Your task to perform on an android device: make emails show in primary in the gmail app Image 0: 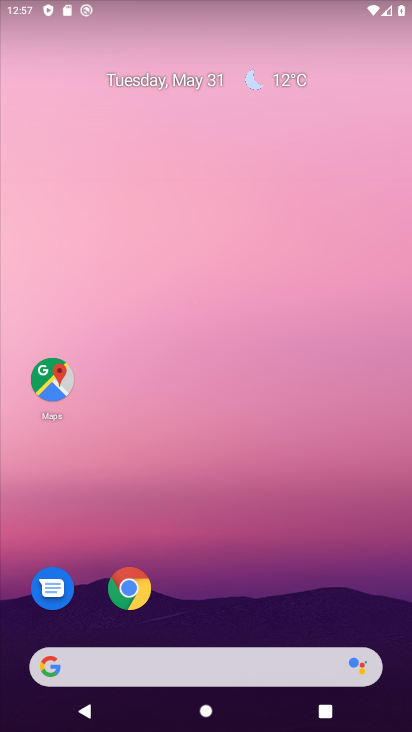
Step 0: drag from (387, 701) to (275, 173)
Your task to perform on an android device: make emails show in primary in the gmail app Image 1: 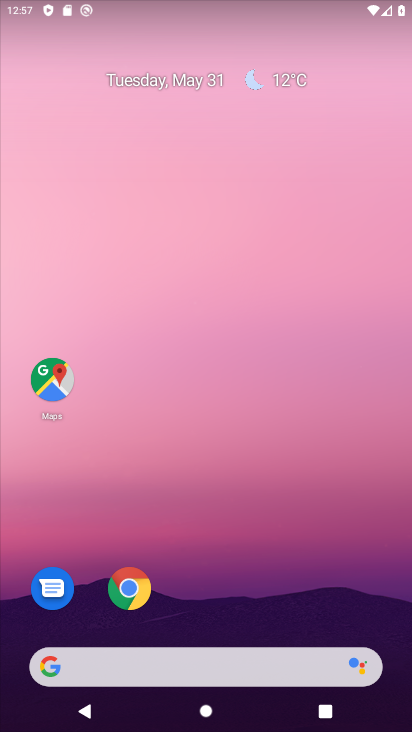
Step 1: drag from (403, 704) to (301, 56)
Your task to perform on an android device: make emails show in primary in the gmail app Image 2: 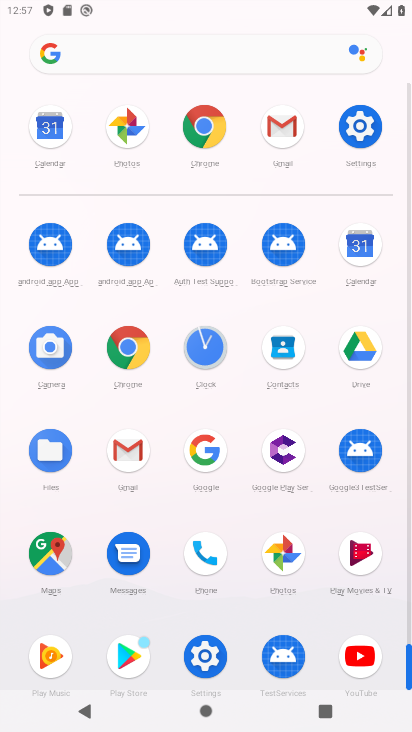
Step 2: click (276, 132)
Your task to perform on an android device: make emails show in primary in the gmail app Image 3: 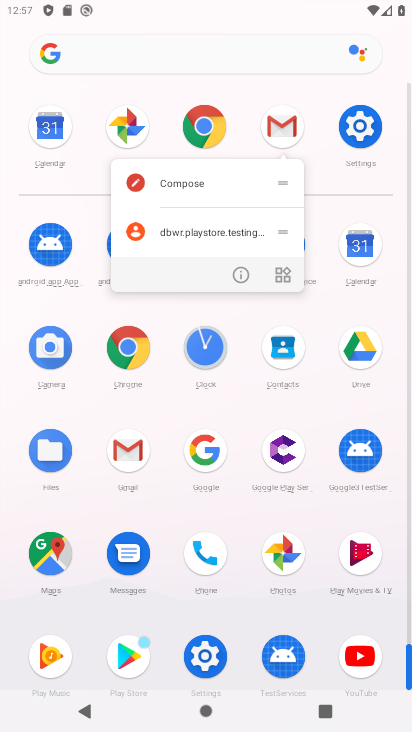
Step 3: click (139, 442)
Your task to perform on an android device: make emails show in primary in the gmail app Image 4: 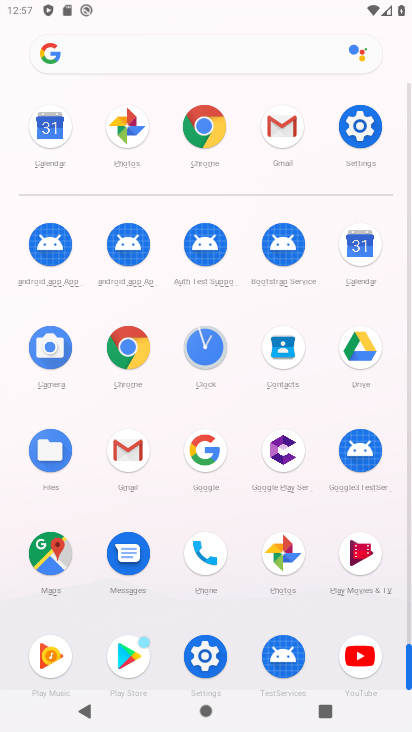
Step 4: click (123, 453)
Your task to perform on an android device: make emails show in primary in the gmail app Image 5: 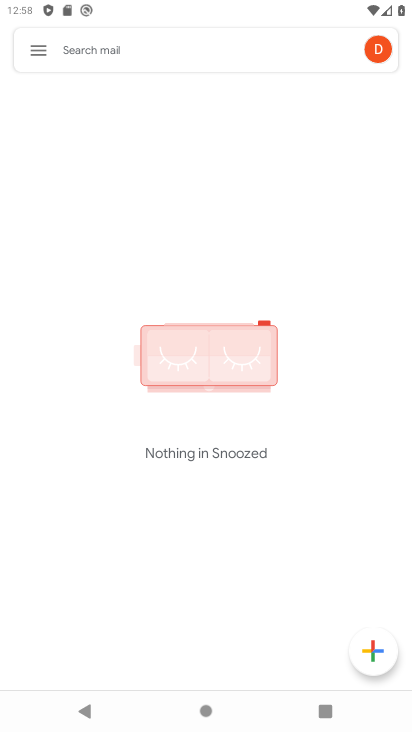
Step 5: press back button
Your task to perform on an android device: make emails show in primary in the gmail app Image 6: 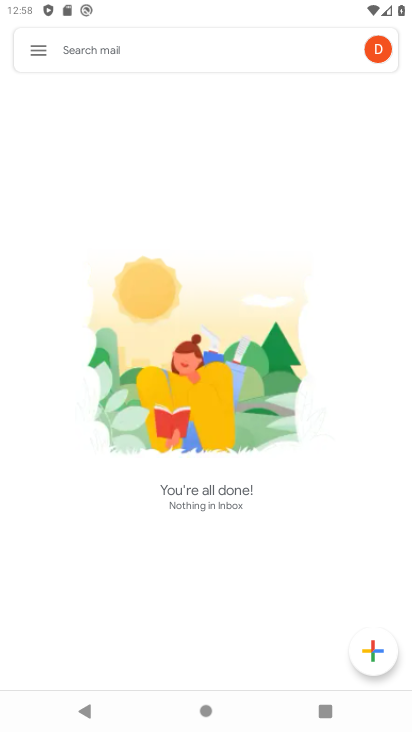
Step 6: click (43, 46)
Your task to perform on an android device: make emails show in primary in the gmail app Image 7: 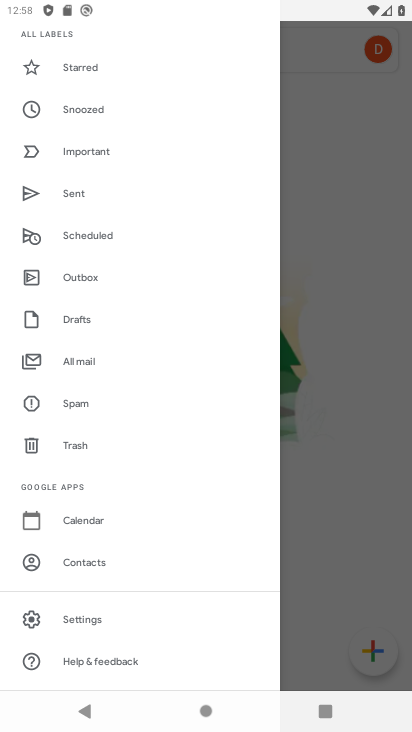
Step 7: drag from (183, 83) to (201, 428)
Your task to perform on an android device: make emails show in primary in the gmail app Image 8: 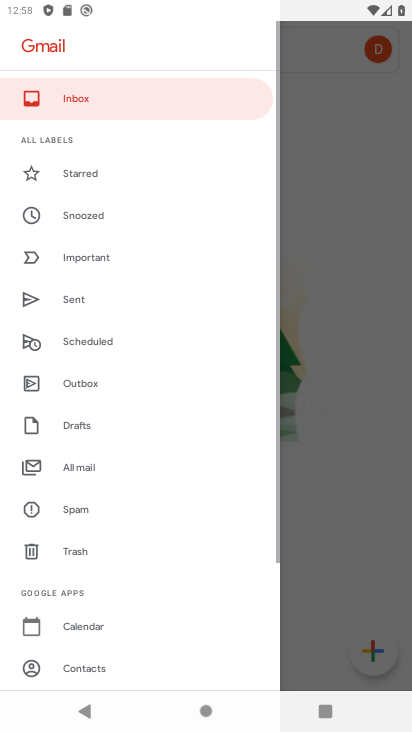
Step 8: drag from (167, 579) to (173, 256)
Your task to perform on an android device: make emails show in primary in the gmail app Image 9: 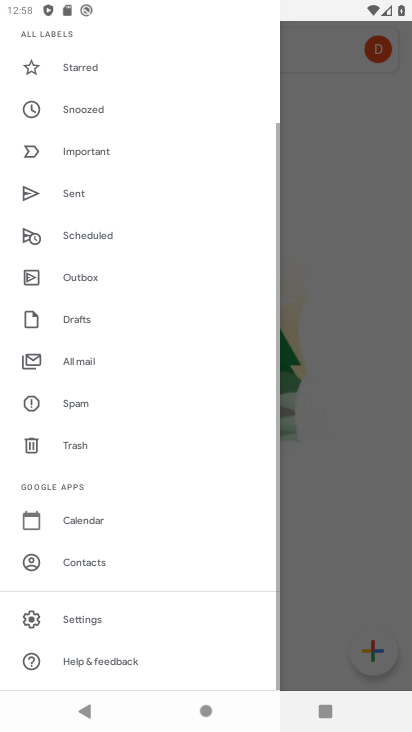
Step 9: click (66, 618)
Your task to perform on an android device: make emails show in primary in the gmail app Image 10: 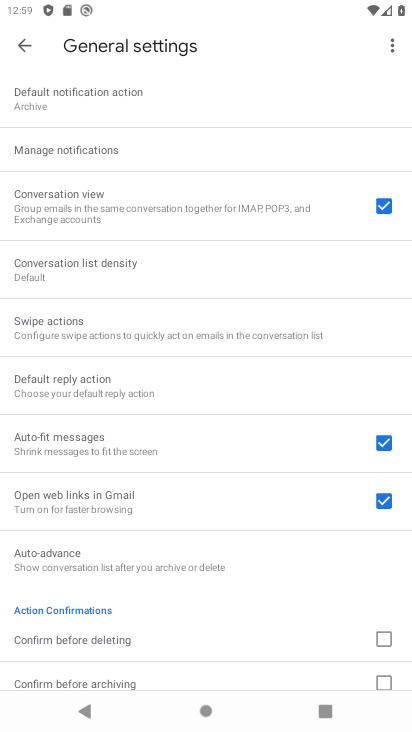
Step 10: click (22, 40)
Your task to perform on an android device: make emails show in primary in the gmail app Image 11: 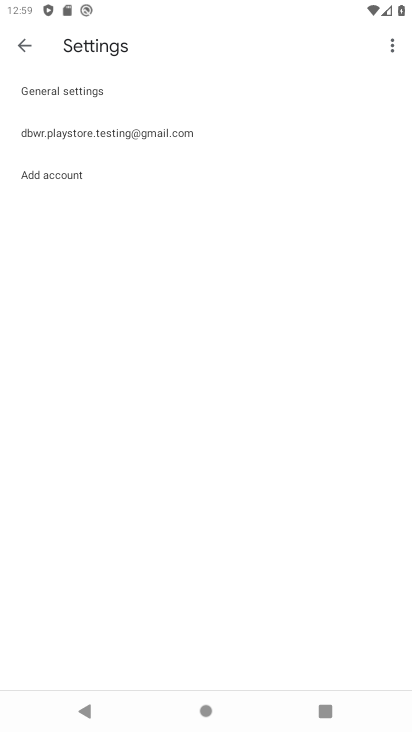
Step 11: click (82, 130)
Your task to perform on an android device: make emails show in primary in the gmail app Image 12: 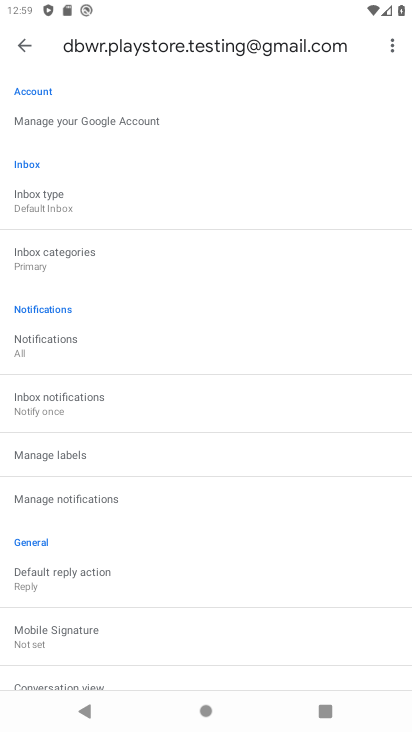
Step 12: click (44, 202)
Your task to perform on an android device: make emails show in primary in the gmail app Image 13: 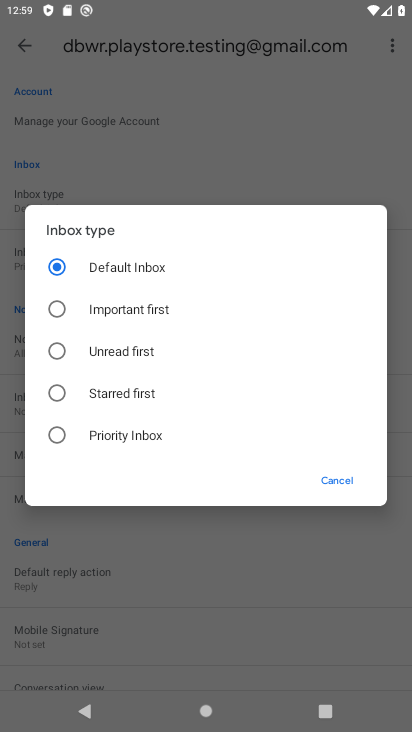
Step 13: click (140, 264)
Your task to perform on an android device: make emails show in primary in the gmail app Image 14: 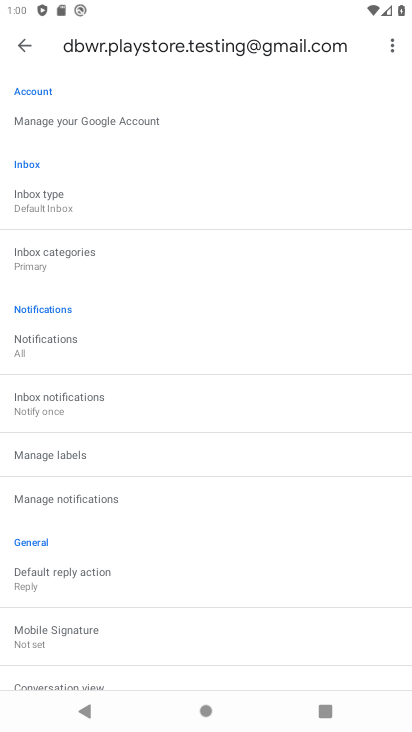
Step 14: task complete